Your task to perform on an android device: Show me productivity apps on the Play Store Image 0: 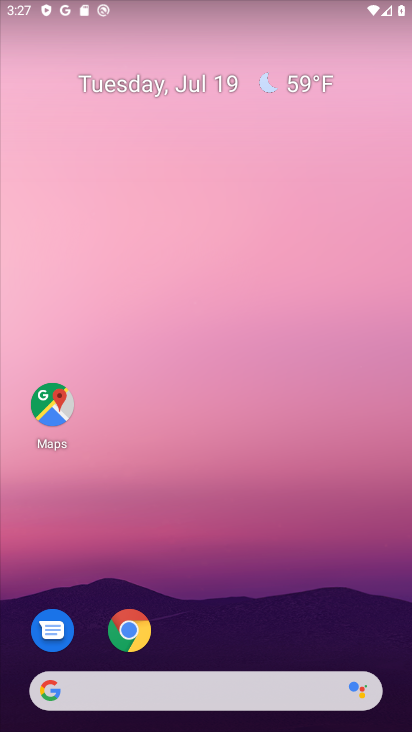
Step 0: drag from (203, 662) to (240, 207)
Your task to perform on an android device: Show me productivity apps on the Play Store Image 1: 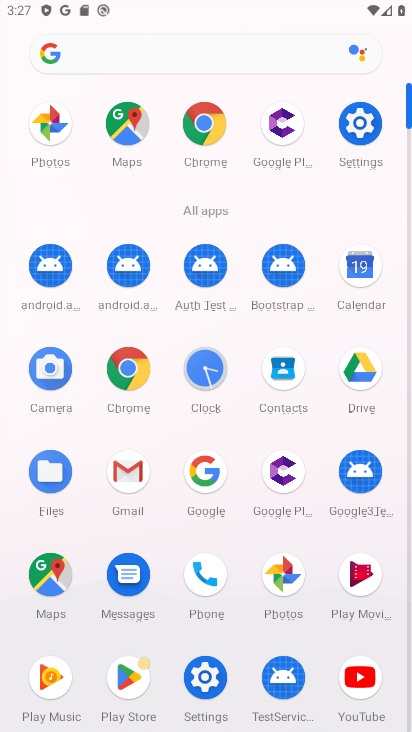
Step 1: click (132, 665)
Your task to perform on an android device: Show me productivity apps on the Play Store Image 2: 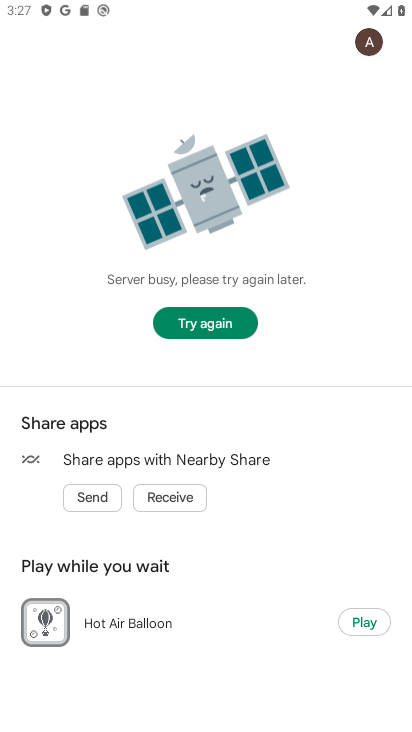
Step 2: task complete